Your task to perform on an android device: turn off notifications settings in the gmail app Image 0: 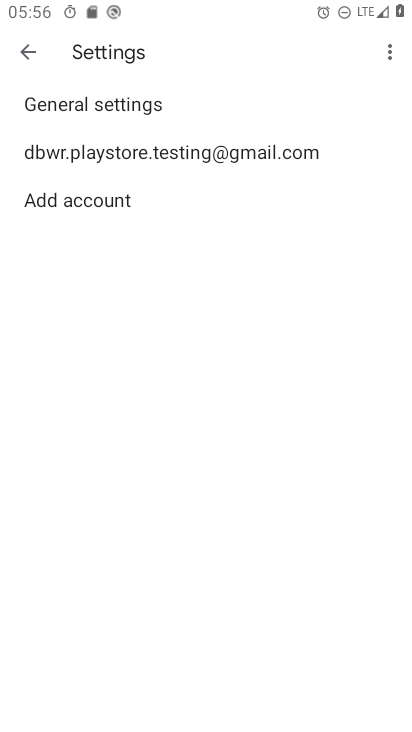
Step 0: press home button
Your task to perform on an android device: turn off notifications settings in the gmail app Image 1: 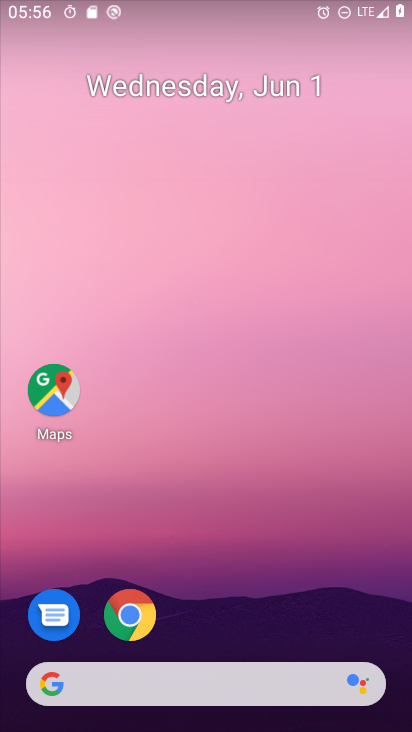
Step 1: drag from (229, 662) to (328, 5)
Your task to perform on an android device: turn off notifications settings in the gmail app Image 2: 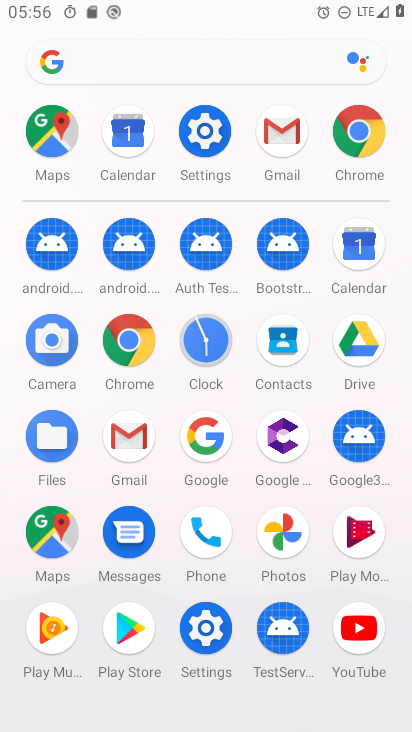
Step 2: click (135, 441)
Your task to perform on an android device: turn off notifications settings in the gmail app Image 3: 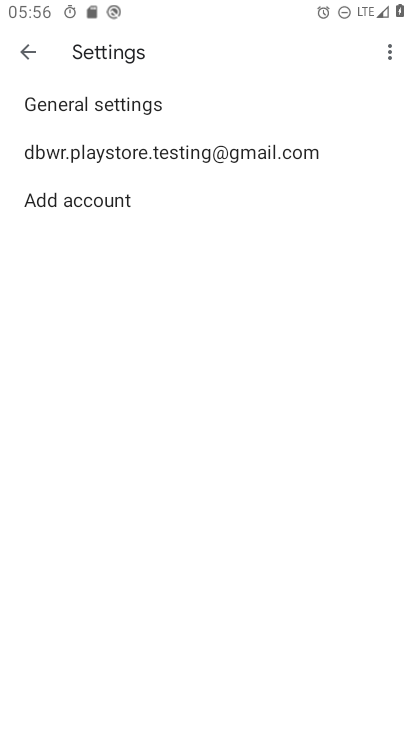
Step 3: click (120, 157)
Your task to perform on an android device: turn off notifications settings in the gmail app Image 4: 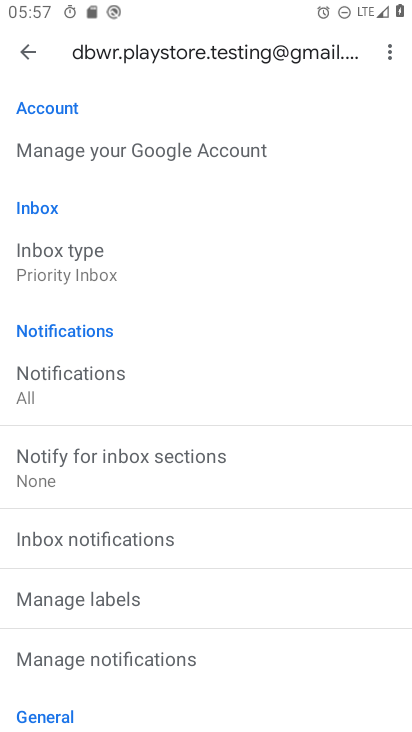
Step 4: click (129, 652)
Your task to perform on an android device: turn off notifications settings in the gmail app Image 5: 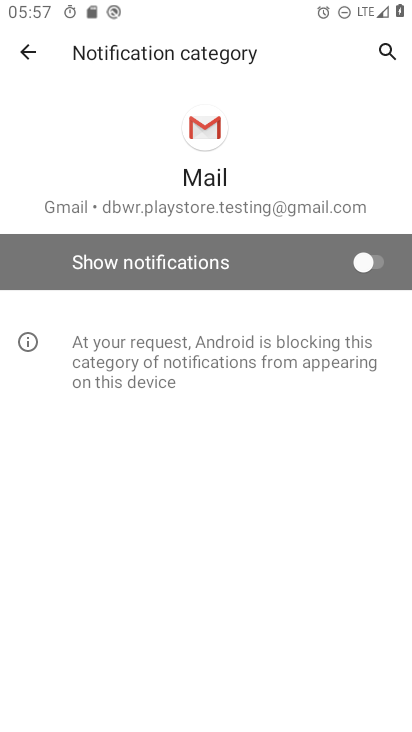
Step 5: task complete